Your task to perform on an android device: Turn off the flashlight Image 0: 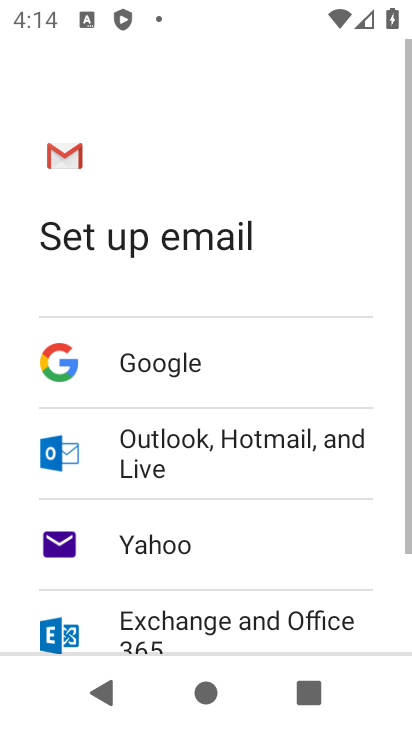
Step 0: press home button
Your task to perform on an android device: Turn off the flashlight Image 1: 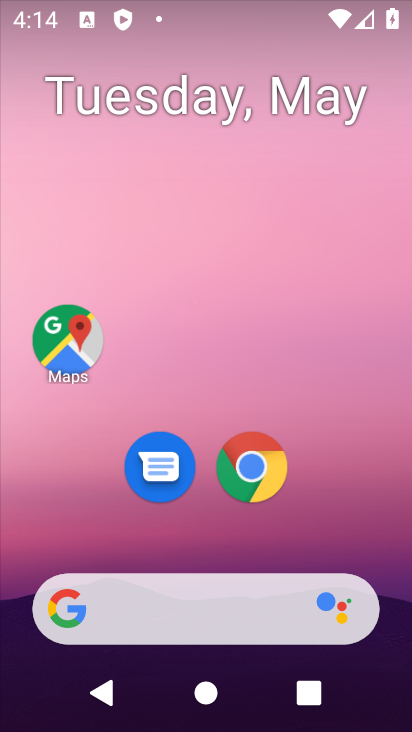
Step 1: task complete